Your task to perform on an android device: create a new album in the google photos Image 0: 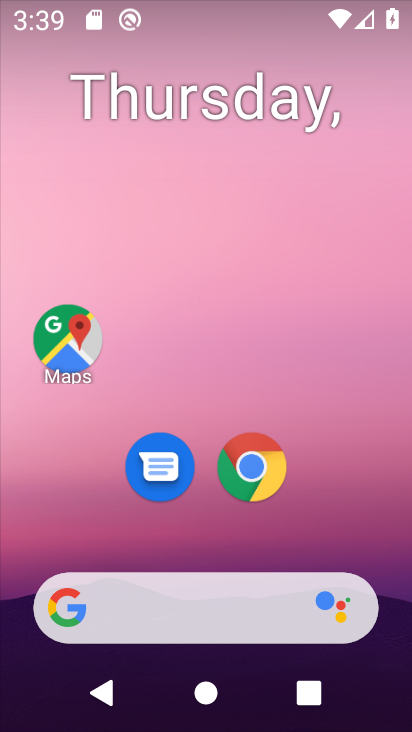
Step 0: drag from (215, 513) to (295, 7)
Your task to perform on an android device: create a new album in the google photos Image 1: 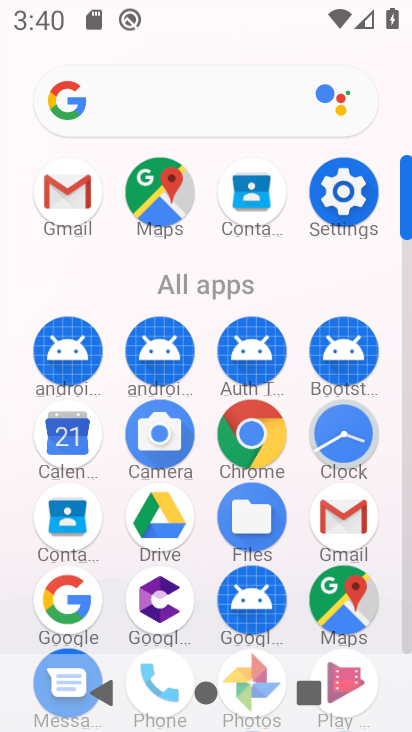
Step 1: drag from (208, 562) to (267, 231)
Your task to perform on an android device: create a new album in the google photos Image 2: 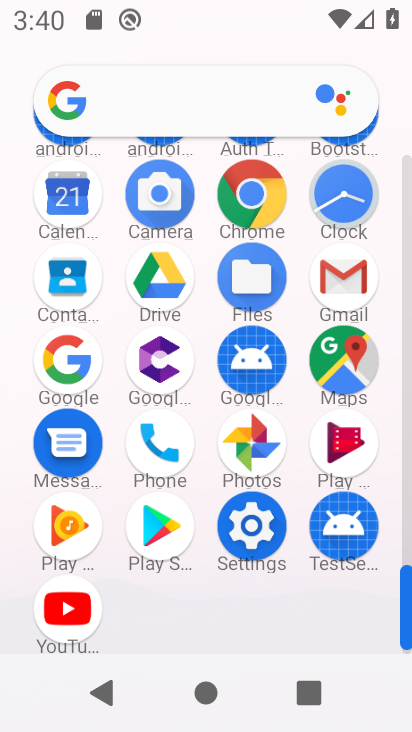
Step 2: click (252, 455)
Your task to perform on an android device: create a new album in the google photos Image 3: 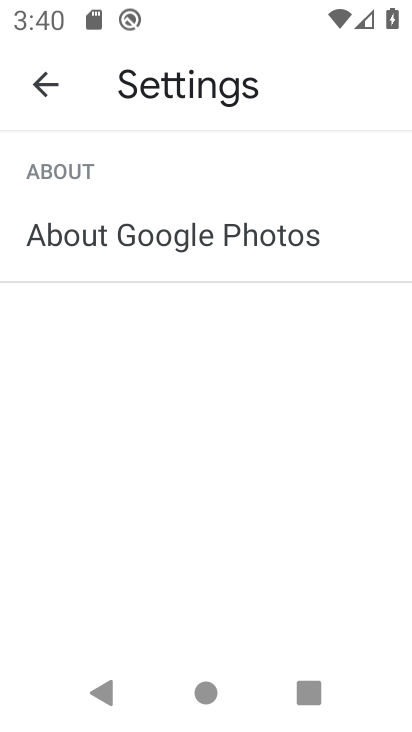
Step 3: click (55, 80)
Your task to perform on an android device: create a new album in the google photos Image 4: 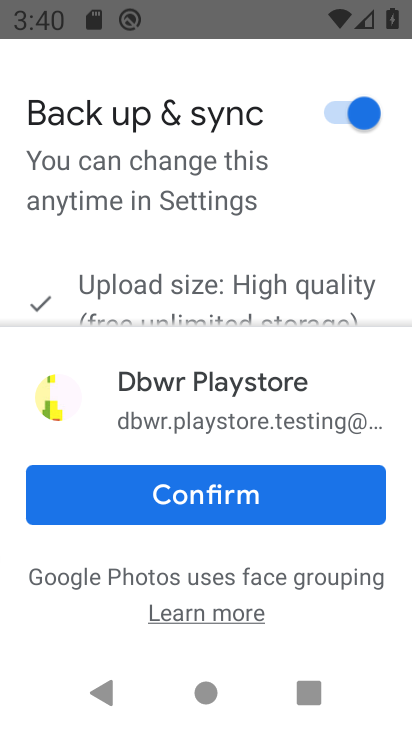
Step 4: click (166, 496)
Your task to perform on an android device: create a new album in the google photos Image 5: 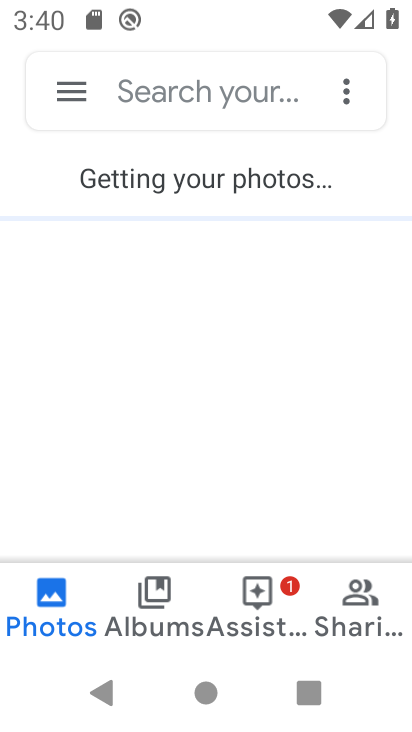
Step 5: click (161, 592)
Your task to perform on an android device: create a new album in the google photos Image 6: 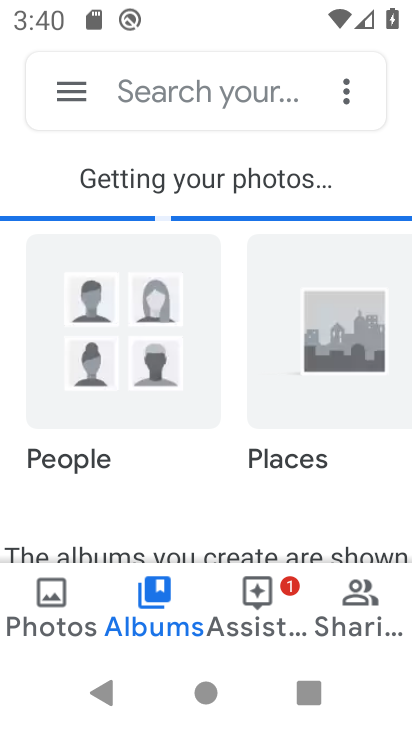
Step 6: drag from (163, 468) to (223, 221)
Your task to perform on an android device: create a new album in the google photos Image 7: 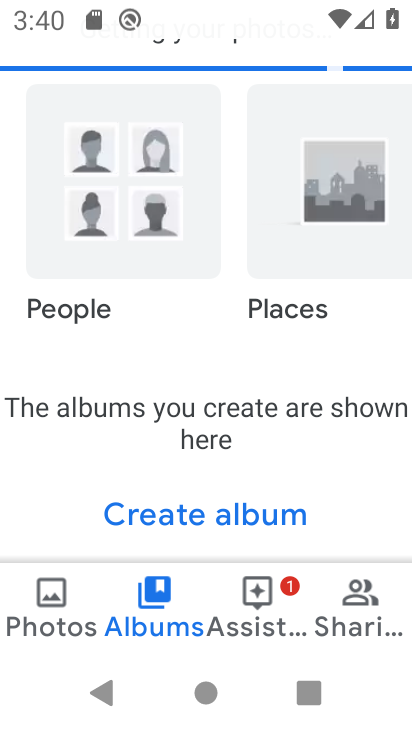
Step 7: click (238, 511)
Your task to perform on an android device: create a new album in the google photos Image 8: 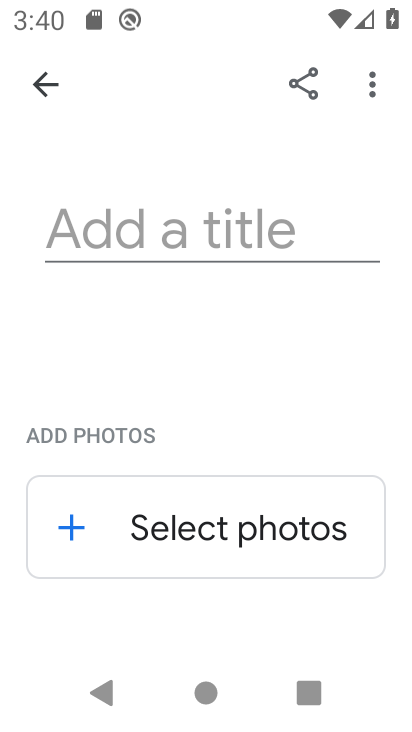
Step 8: click (181, 241)
Your task to perform on an android device: create a new album in the google photos Image 9: 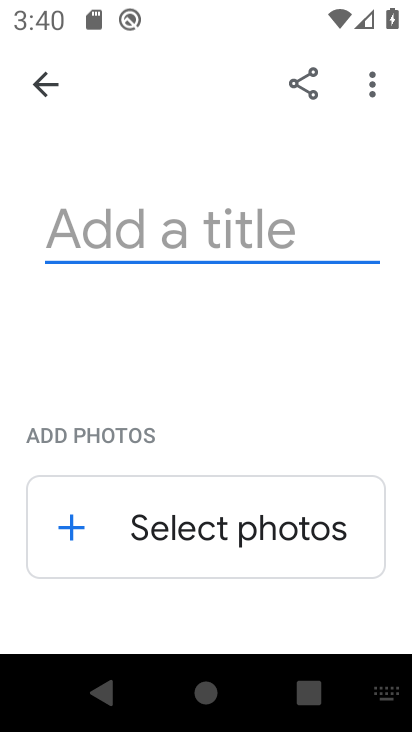
Step 9: type "aliko"
Your task to perform on an android device: create a new album in the google photos Image 10: 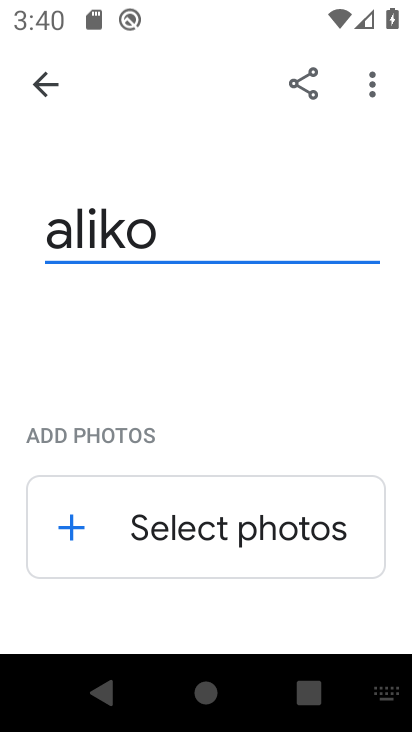
Step 10: click (162, 526)
Your task to perform on an android device: create a new album in the google photos Image 11: 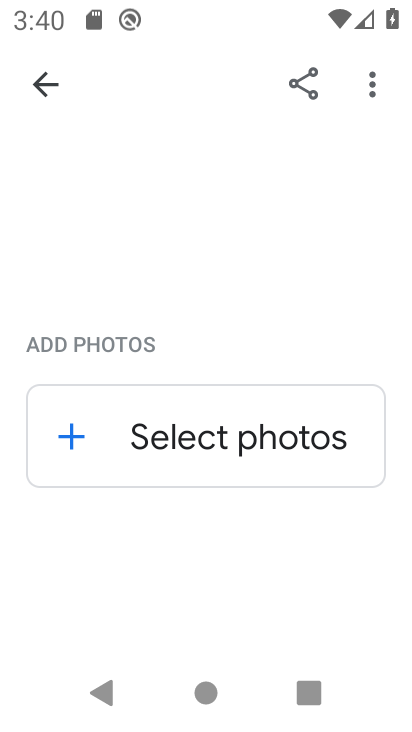
Step 11: drag from (117, 435) to (407, 478)
Your task to perform on an android device: create a new album in the google photos Image 12: 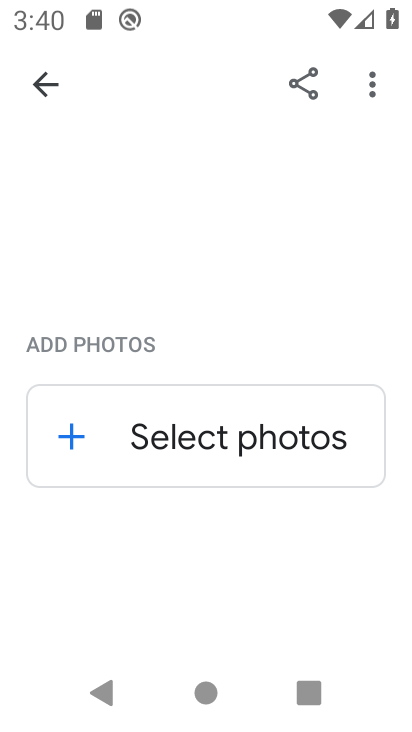
Step 12: click (63, 431)
Your task to perform on an android device: create a new album in the google photos Image 13: 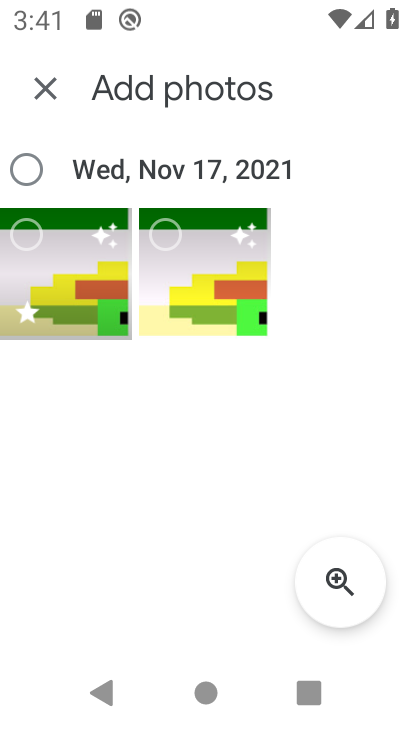
Step 13: click (48, 246)
Your task to perform on an android device: create a new album in the google photos Image 14: 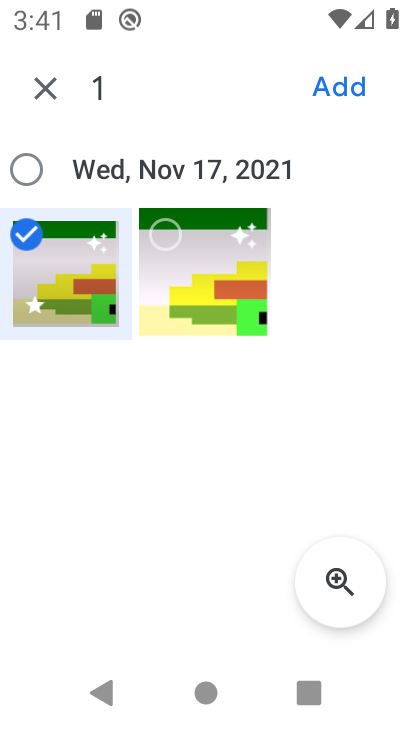
Step 14: click (173, 230)
Your task to perform on an android device: create a new album in the google photos Image 15: 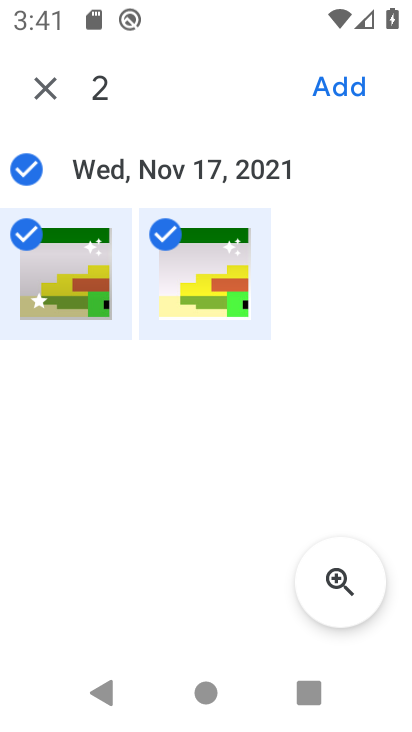
Step 15: click (349, 94)
Your task to perform on an android device: create a new album in the google photos Image 16: 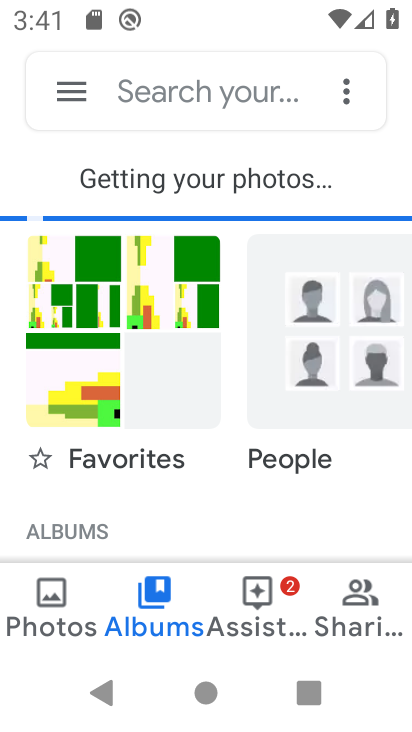
Step 16: drag from (138, 481) to (205, 213)
Your task to perform on an android device: create a new album in the google photos Image 17: 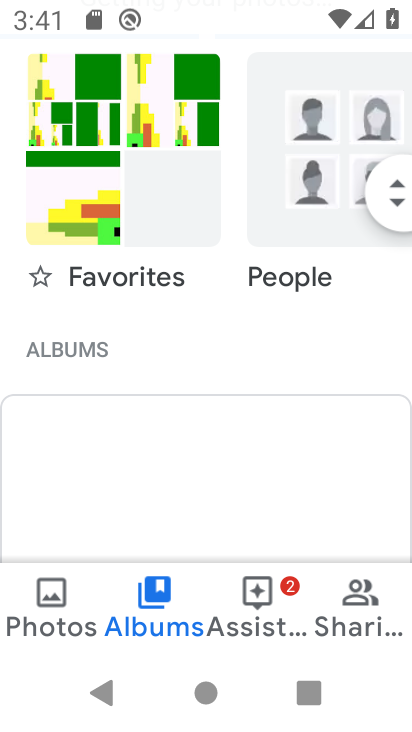
Step 17: drag from (191, 421) to (298, 12)
Your task to perform on an android device: create a new album in the google photos Image 18: 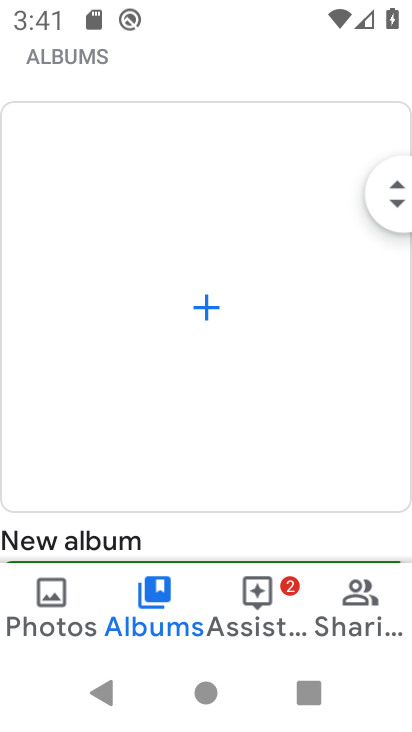
Step 18: drag from (219, 428) to (283, 10)
Your task to perform on an android device: create a new album in the google photos Image 19: 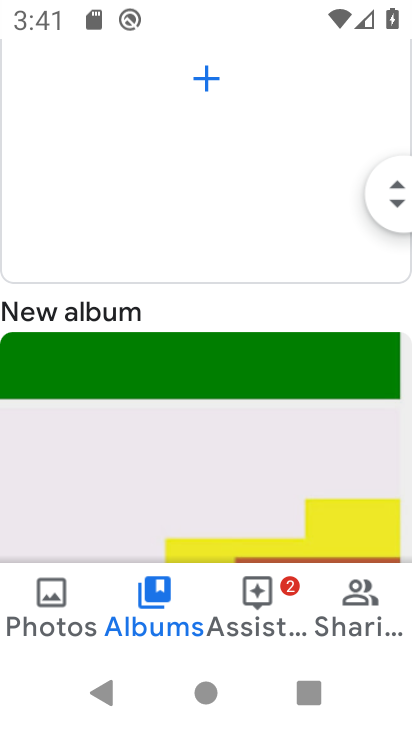
Step 19: drag from (208, 346) to (287, 5)
Your task to perform on an android device: create a new album in the google photos Image 20: 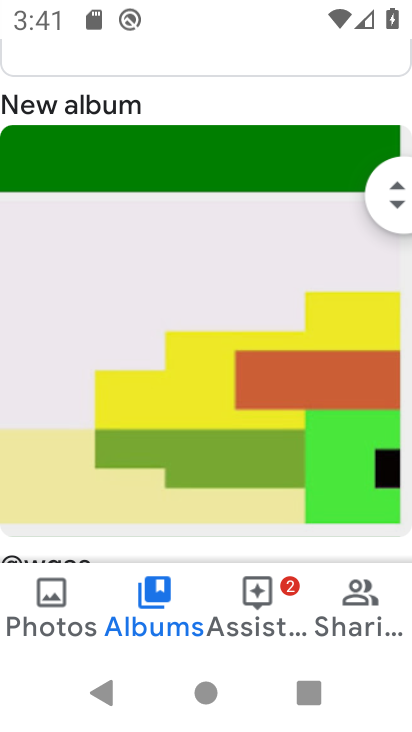
Step 20: drag from (224, 243) to (259, 16)
Your task to perform on an android device: create a new album in the google photos Image 21: 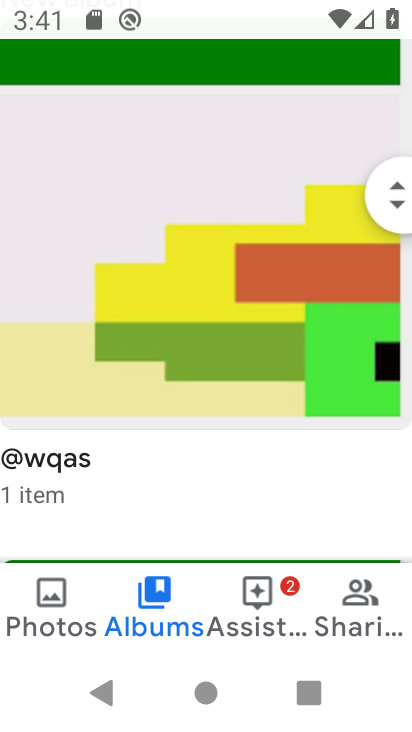
Step 21: drag from (178, 189) to (109, 731)
Your task to perform on an android device: create a new album in the google photos Image 22: 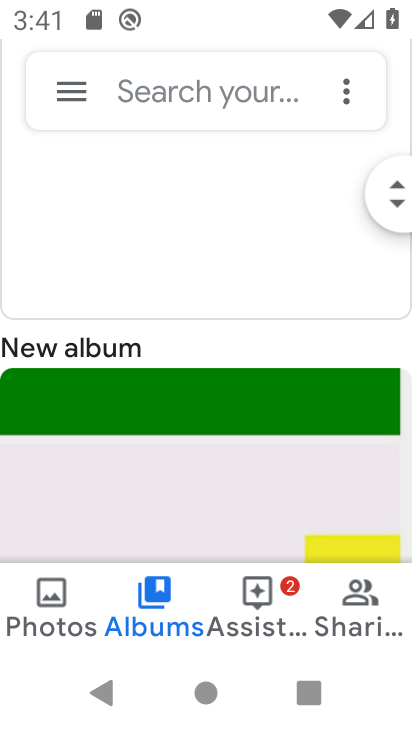
Step 22: drag from (179, 268) to (170, 683)
Your task to perform on an android device: create a new album in the google photos Image 23: 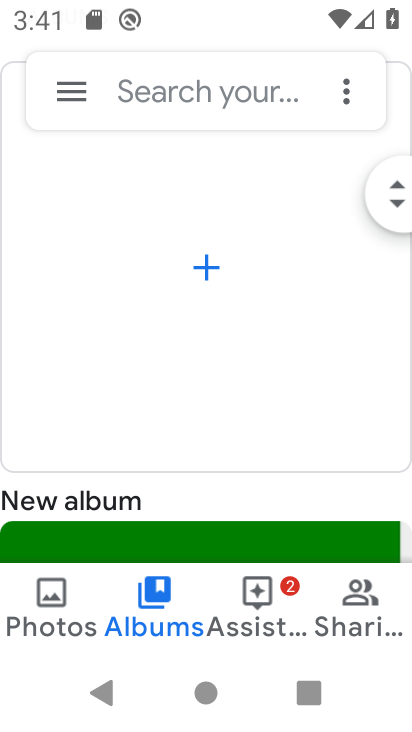
Step 23: click (206, 273)
Your task to perform on an android device: create a new album in the google photos Image 24: 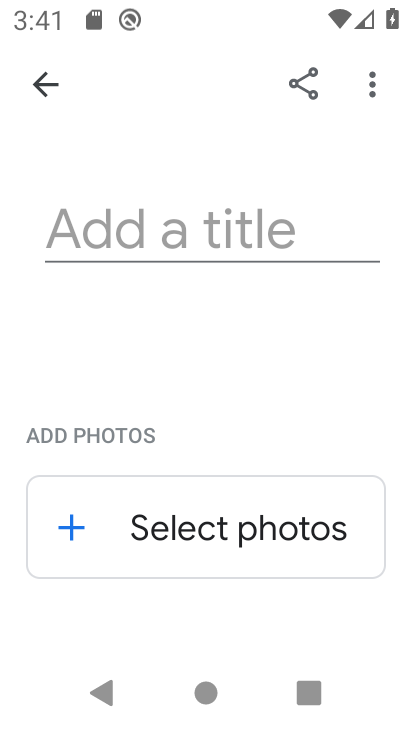
Step 24: click (203, 233)
Your task to perform on an android device: create a new album in the google photos Image 25: 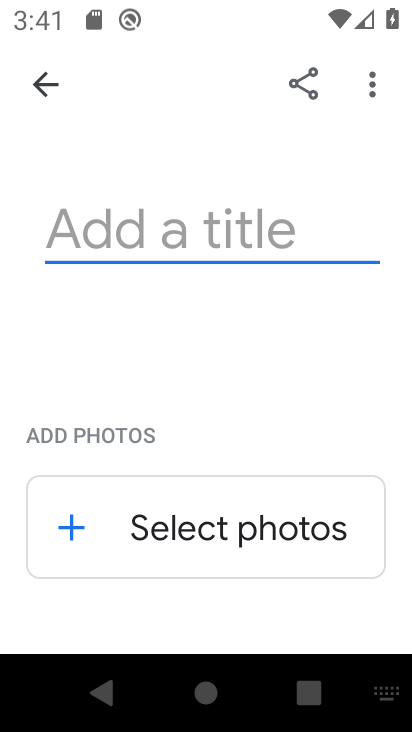
Step 25: type "adamasa"
Your task to perform on an android device: create a new album in the google photos Image 26: 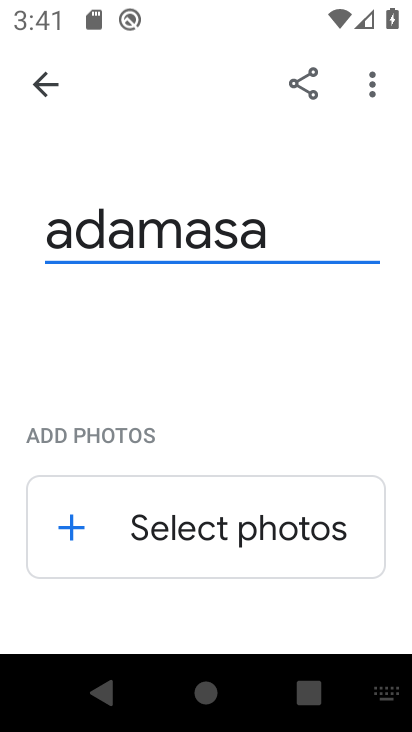
Step 26: click (66, 522)
Your task to perform on an android device: create a new album in the google photos Image 27: 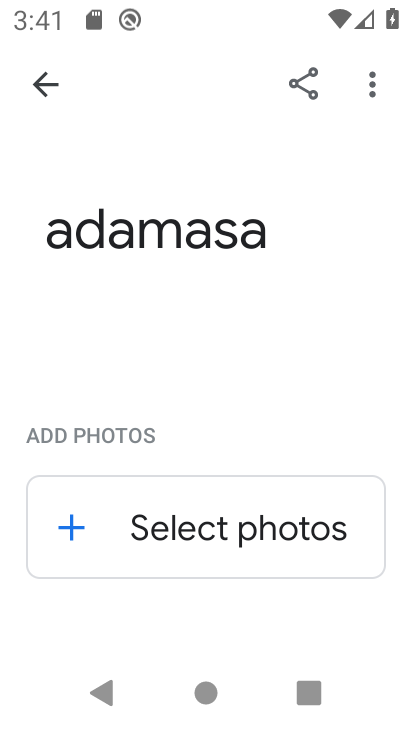
Step 27: click (70, 534)
Your task to perform on an android device: create a new album in the google photos Image 28: 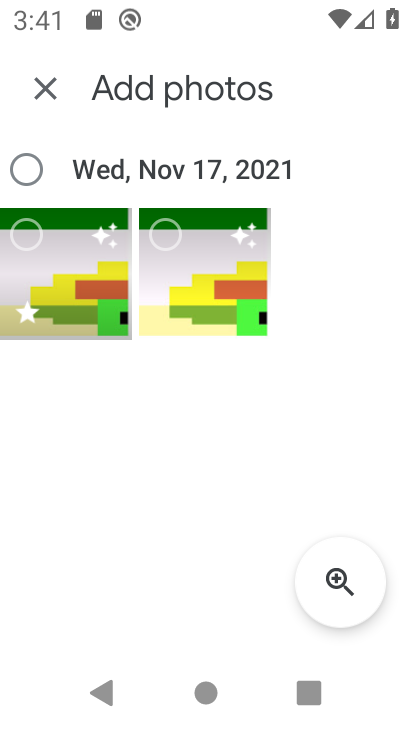
Step 28: click (63, 231)
Your task to perform on an android device: create a new album in the google photos Image 29: 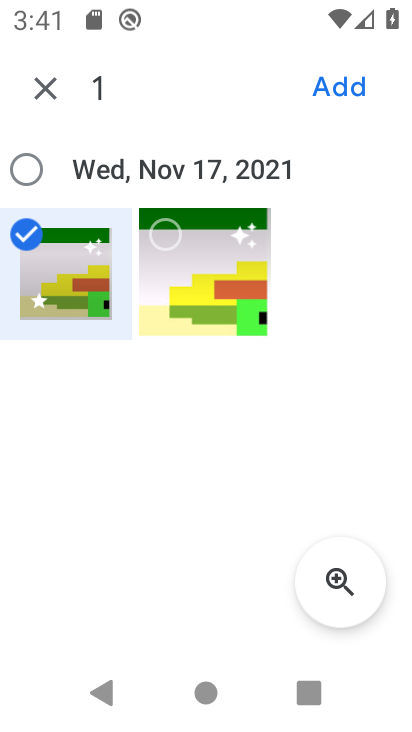
Step 29: click (179, 230)
Your task to perform on an android device: create a new album in the google photos Image 30: 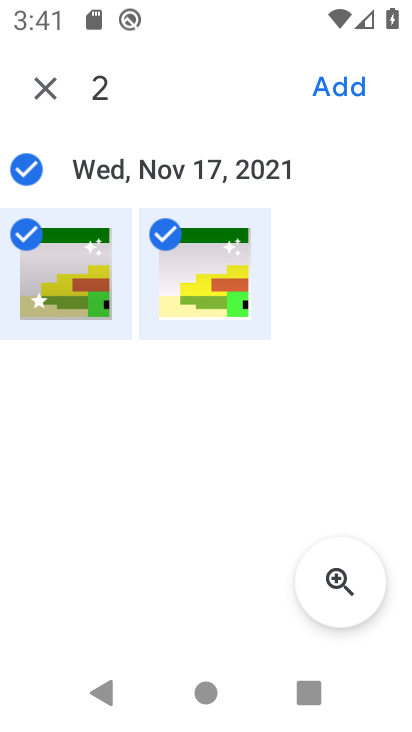
Step 30: click (358, 88)
Your task to perform on an android device: create a new album in the google photos Image 31: 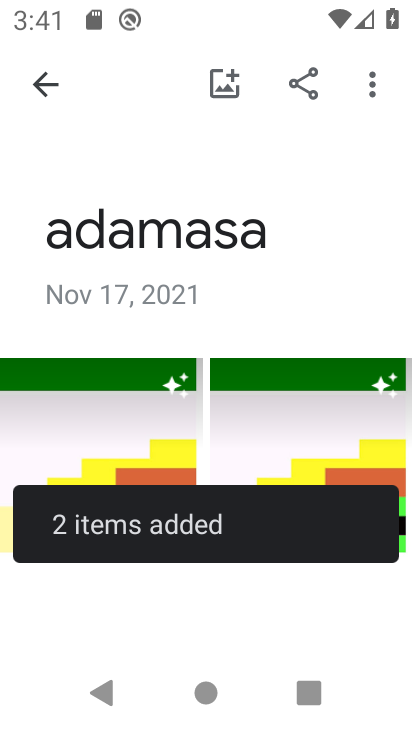
Step 31: task complete